Your task to perform on an android device: change notification settings in the gmail app Image 0: 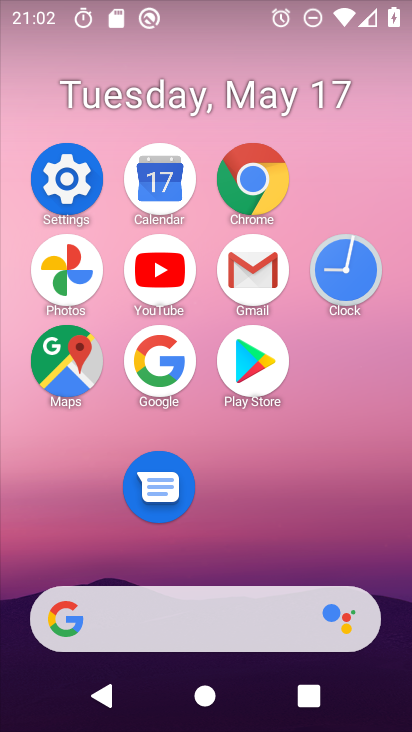
Step 0: click (260, 274)
Your task to perform on an android device: change notification settings in the gmail app Image 1: 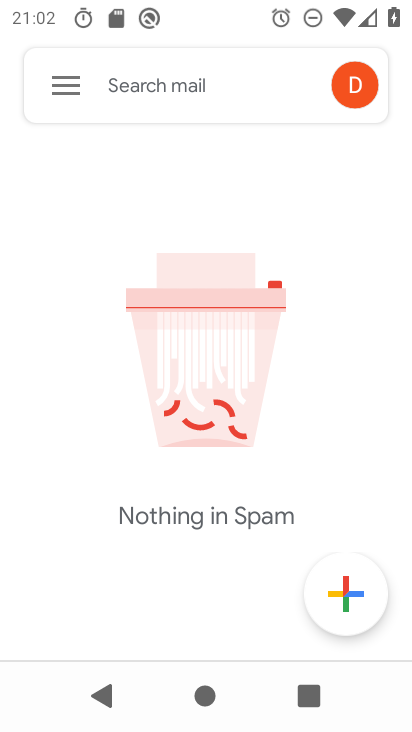
Step 1: click (43, 95)
Your task to perform on an android device: change notification settings in the gmail app Image 2: 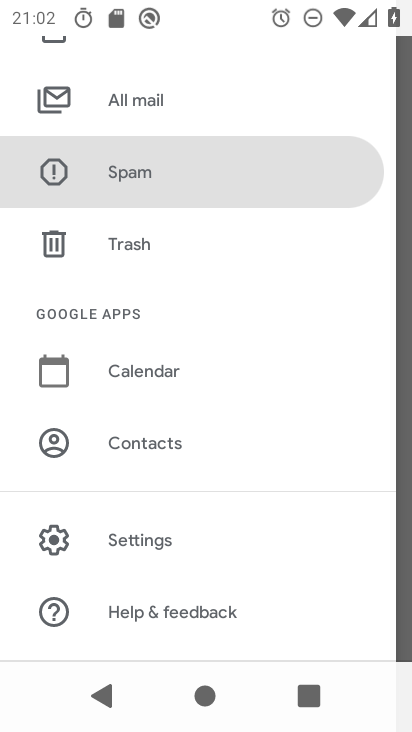
Step 2: click (213, 518)
Your task to perform on an android device: change notification settings in the gmail app Image 3: 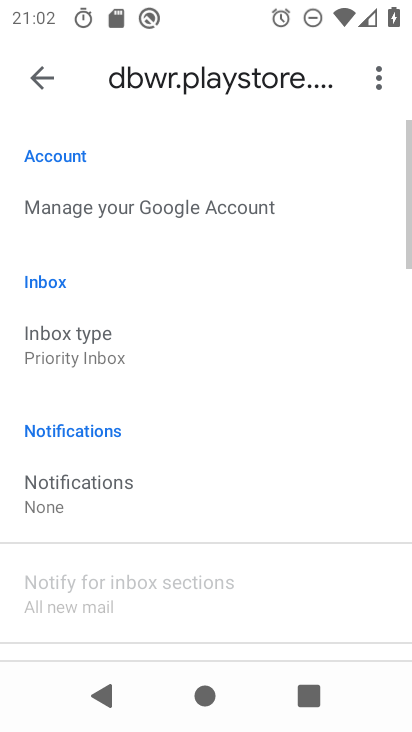
Step 3: click (167, 498)
Your task to perform on an android device: change notification settings in the gmail app Image 4: 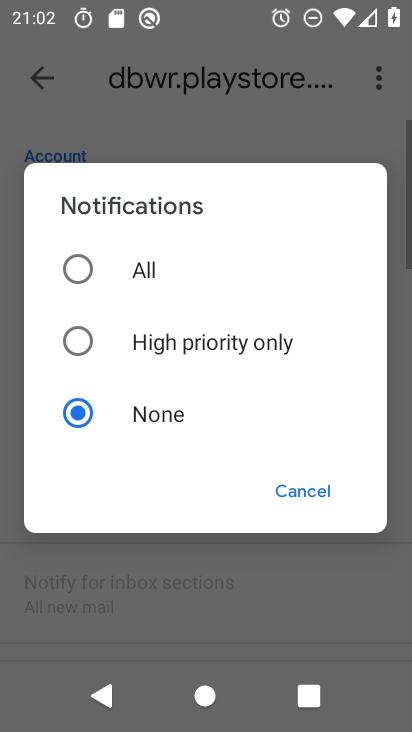
Step 4: click (151, 276)
Your task to perform on an android device: change notification settings in the gmail app Image 5: 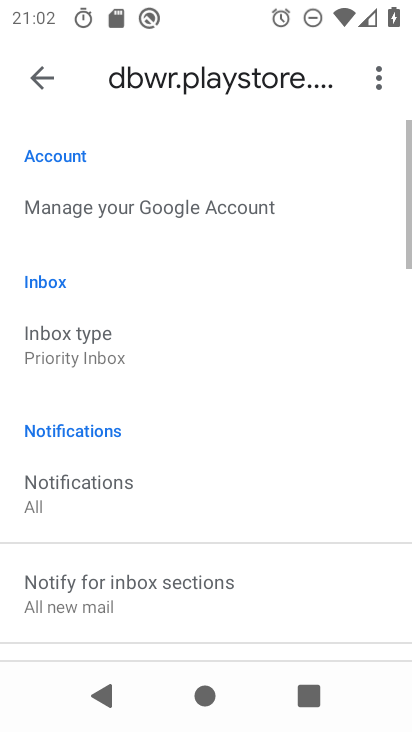
Step 5: task complete